Your task to perform on an android device: Search for Italian restaurants on Maps Image 0: 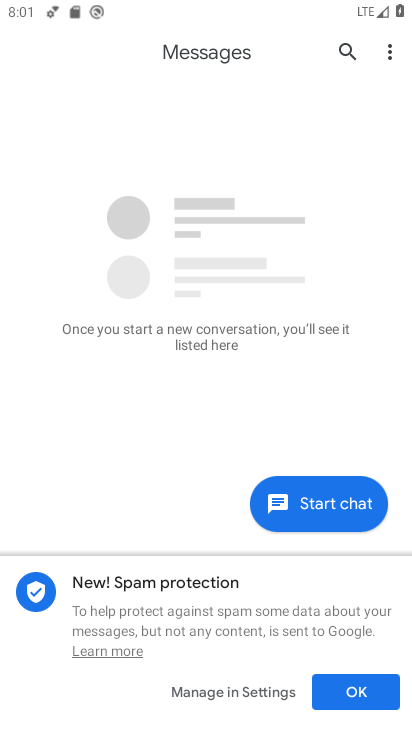
Step 0: press home button
Your task to perform on an android device: Search for Italian restaurants on Maps Image 1: 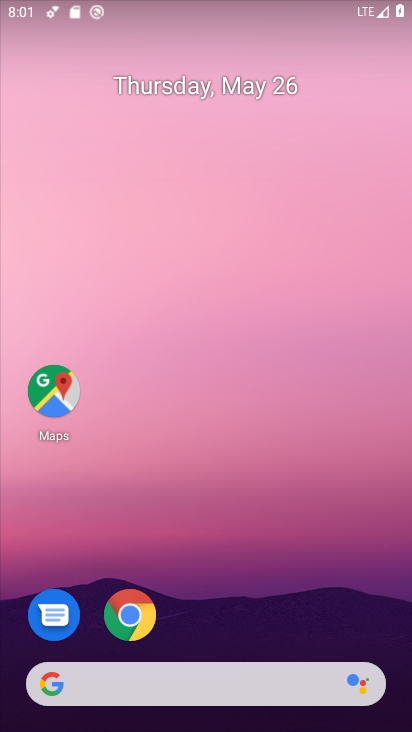
Step 1: click (59, 381)
Your task to perform on an android device: Search for Italian restaurants on Maps Image 2: 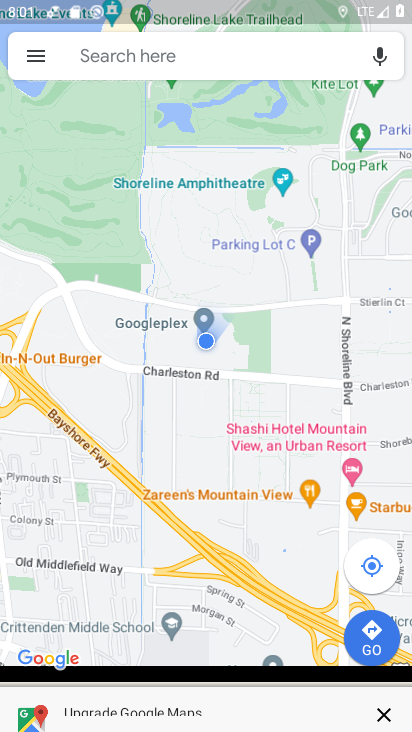
Step 2: click (163, 58)
Your task to perform on an android device: Search for Italian restaurants on Maps Image 3: 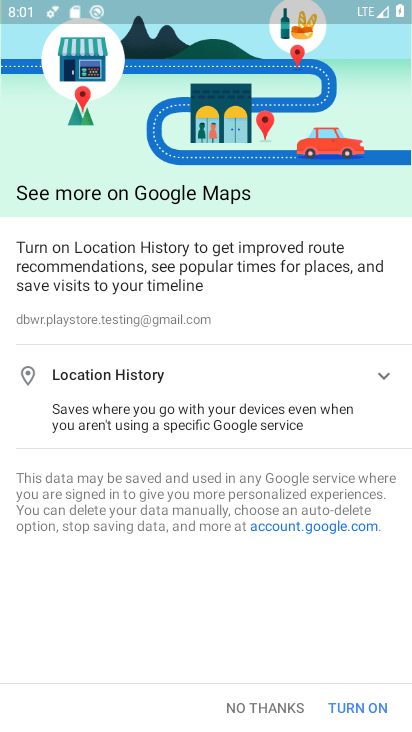
Step 3: click (268, 695)
Your task to perform on an android device: Search for Italian restaurants on Maps Image 4: 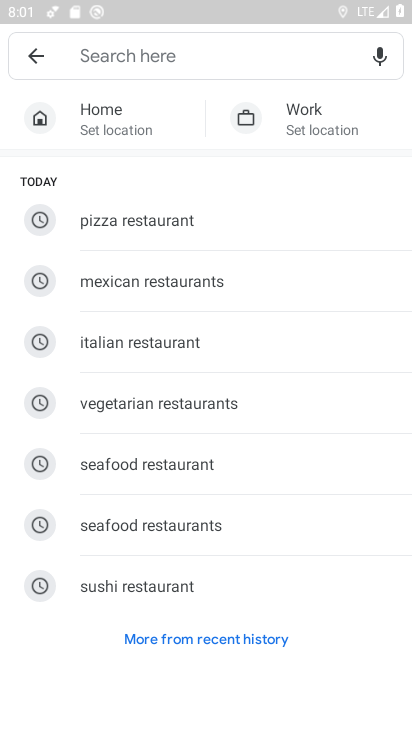
Step 4: click (149, 51)
Your task to perform on an android device: Search for Italian restaurants on Maps Image 5: 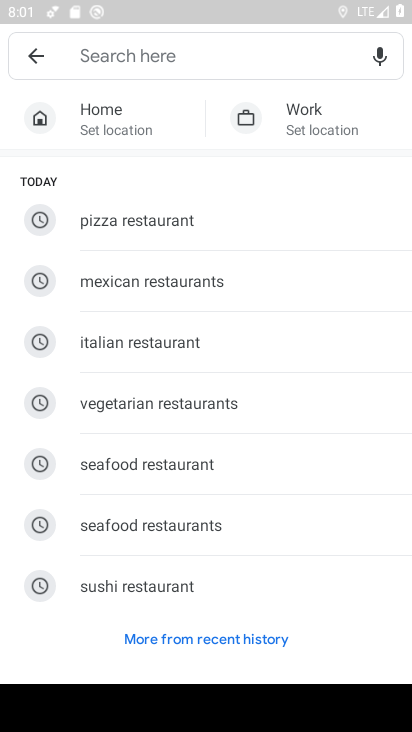
Step 5: type " Italian restaurants "
Your task to perform on an android device: Search for Italian restaurants on Maps Image 6: 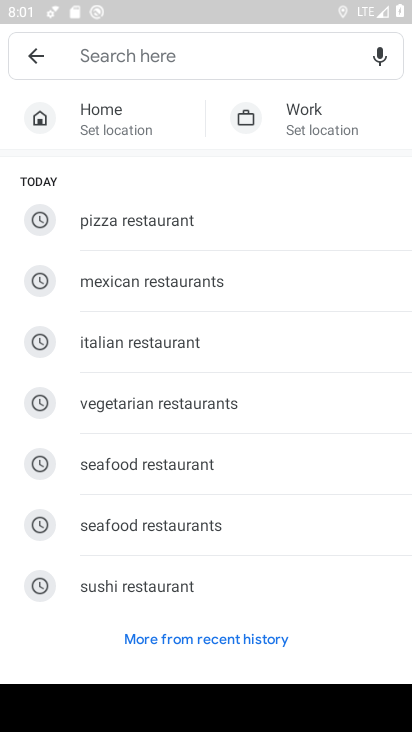
Step 6: click (179, 341)
Your task to perform on an android device: Search for Italian restaurants on Maps Image 7: 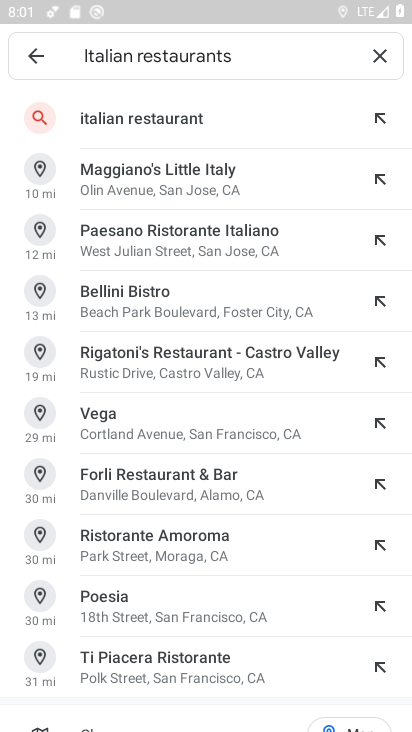
Step 7: click (156, 117)
Your task to perform on an android device: Search for Italian restaurants on Maps Image 8: 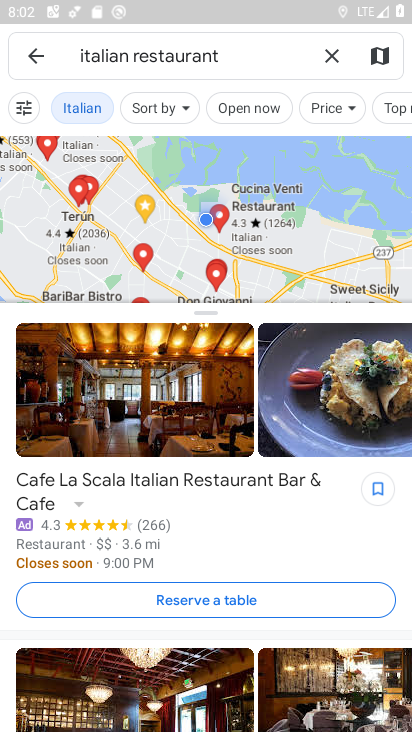
Step 8: task complete